Your task to perform on an android device: Open sound settings Image 0: 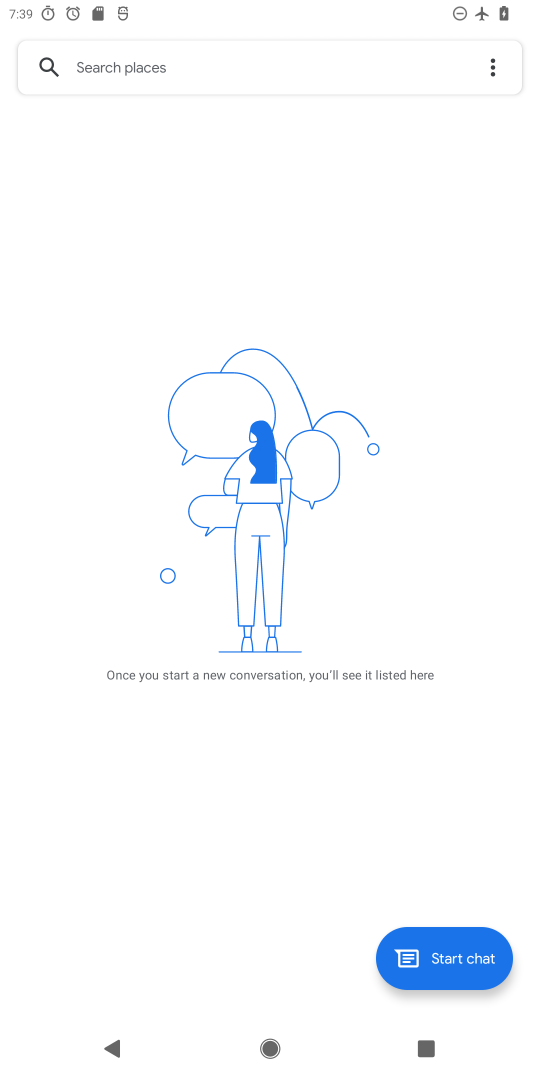
Step 0: press home button
Your task to perform on an android device: Open sound settings Image 1: 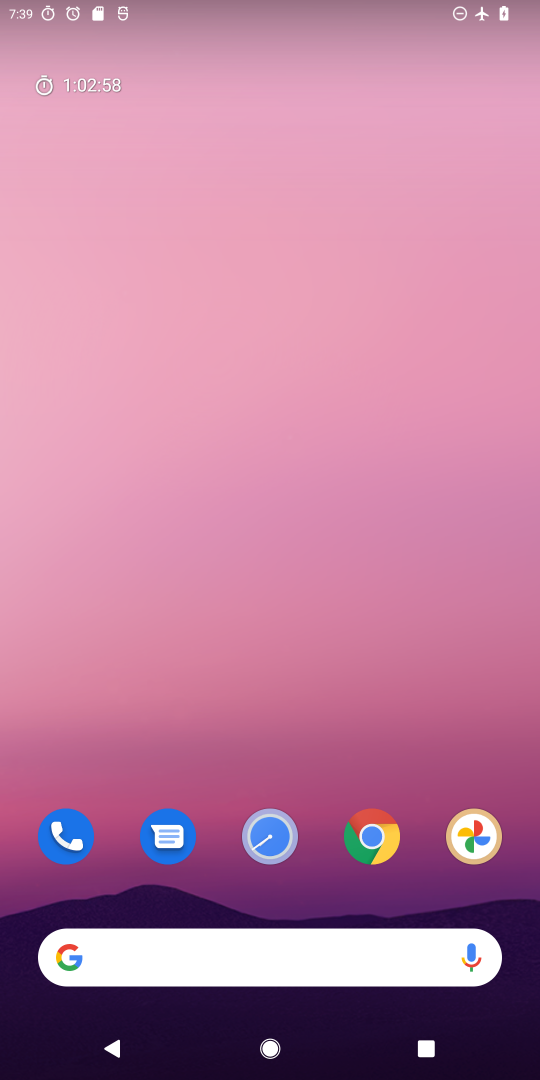
Step 1: drag from (336, 688) to (499, 0)
Your task to perform on an android device: Open sound settings Image 2: 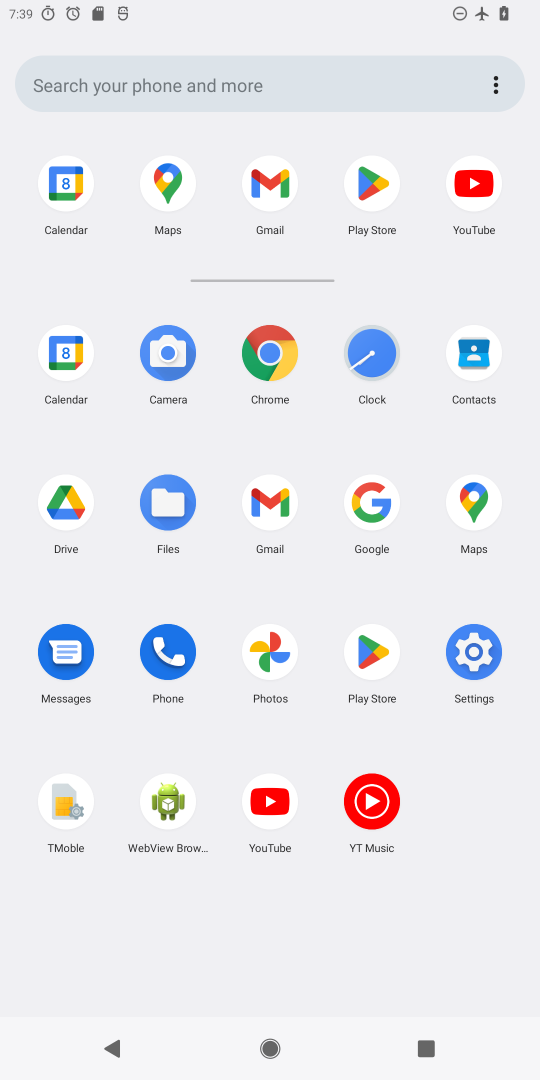
Step 2: click (482, 667)
Your task to perform on an android device: Open sound settings Image 3: 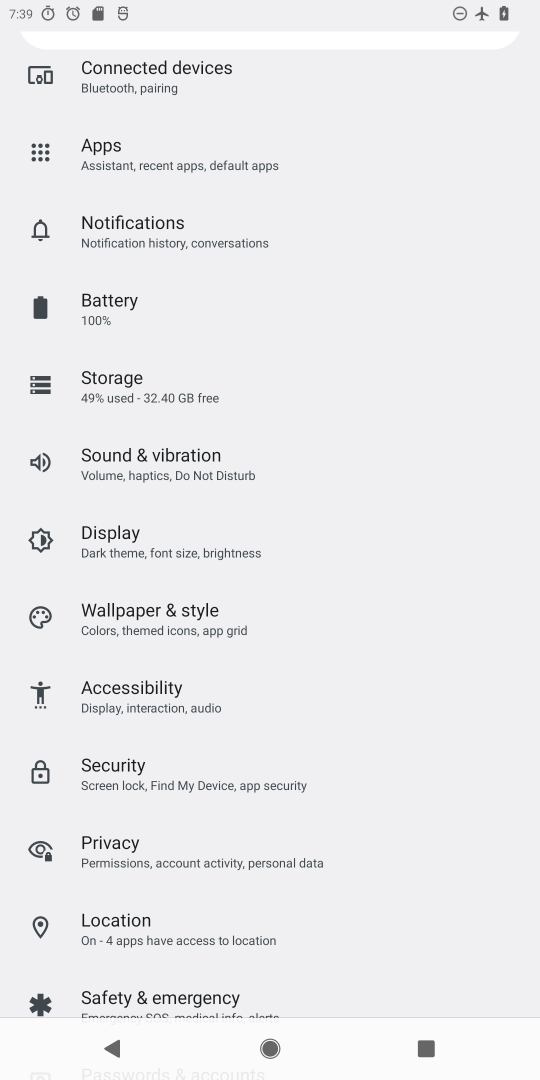
Step 3: click (224, 447)
Your task to perform on an android device: Open sound settings Image 4: 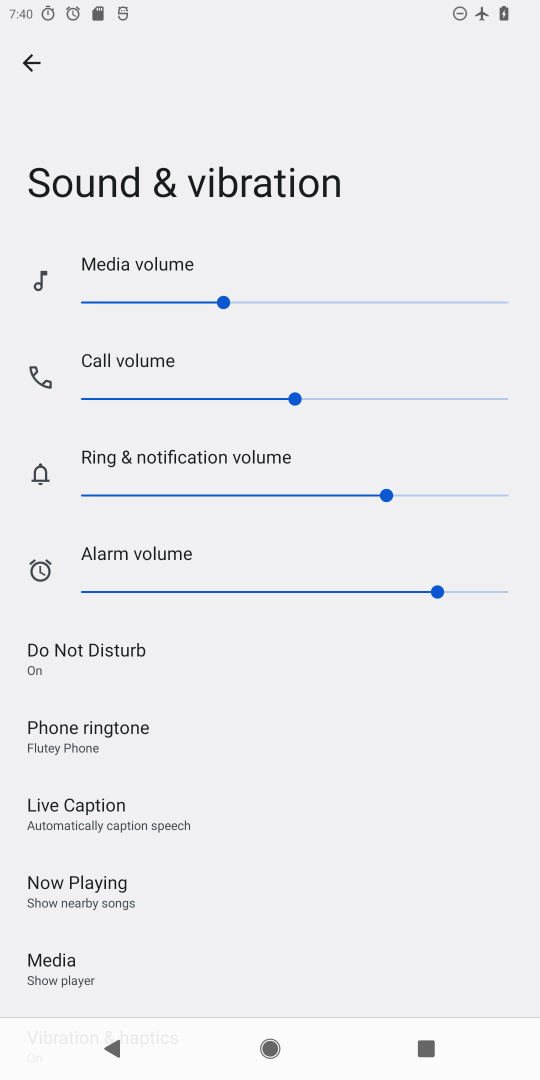
Step 4: task complete